Your task to perform on an android device: open app "Truecaller" Image 0: 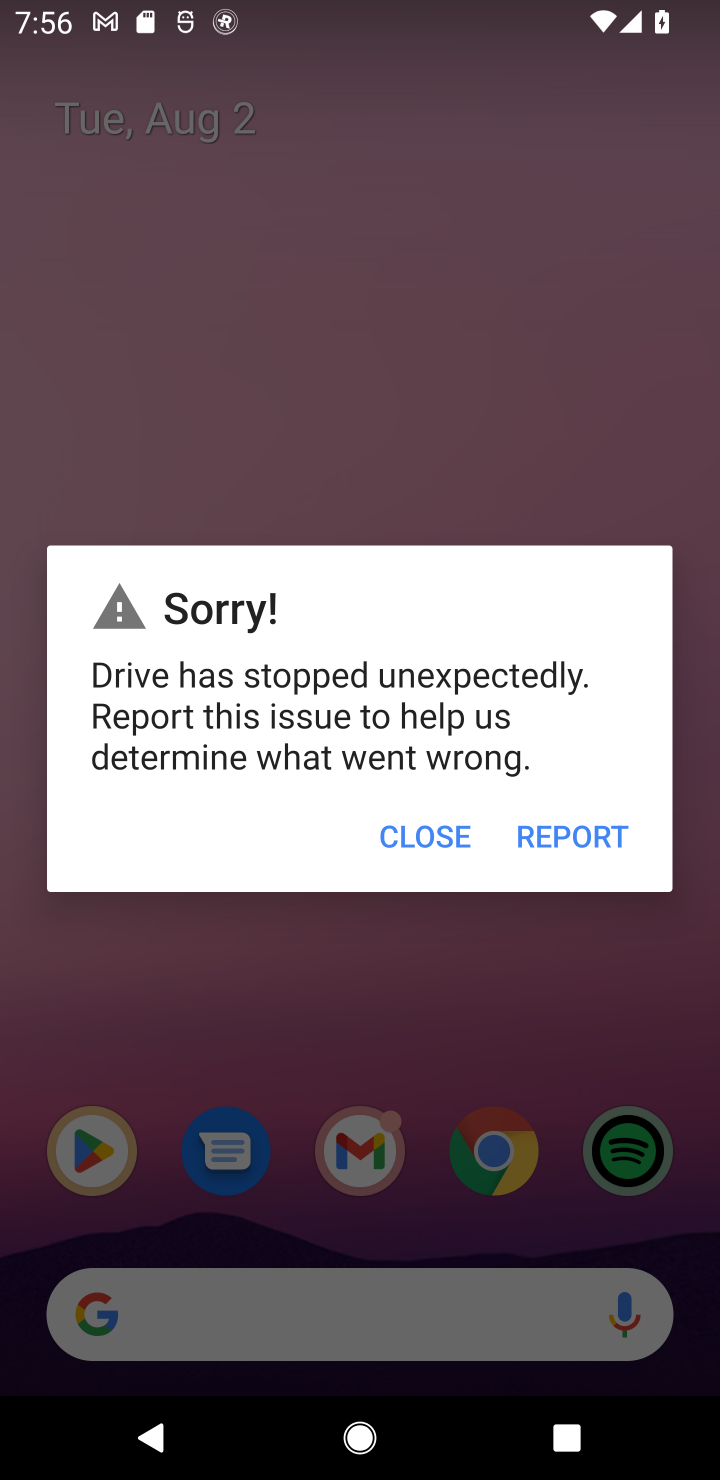
Step 0: press back button
Your task to perform on an android device: open app "Truecaller" Image 1: 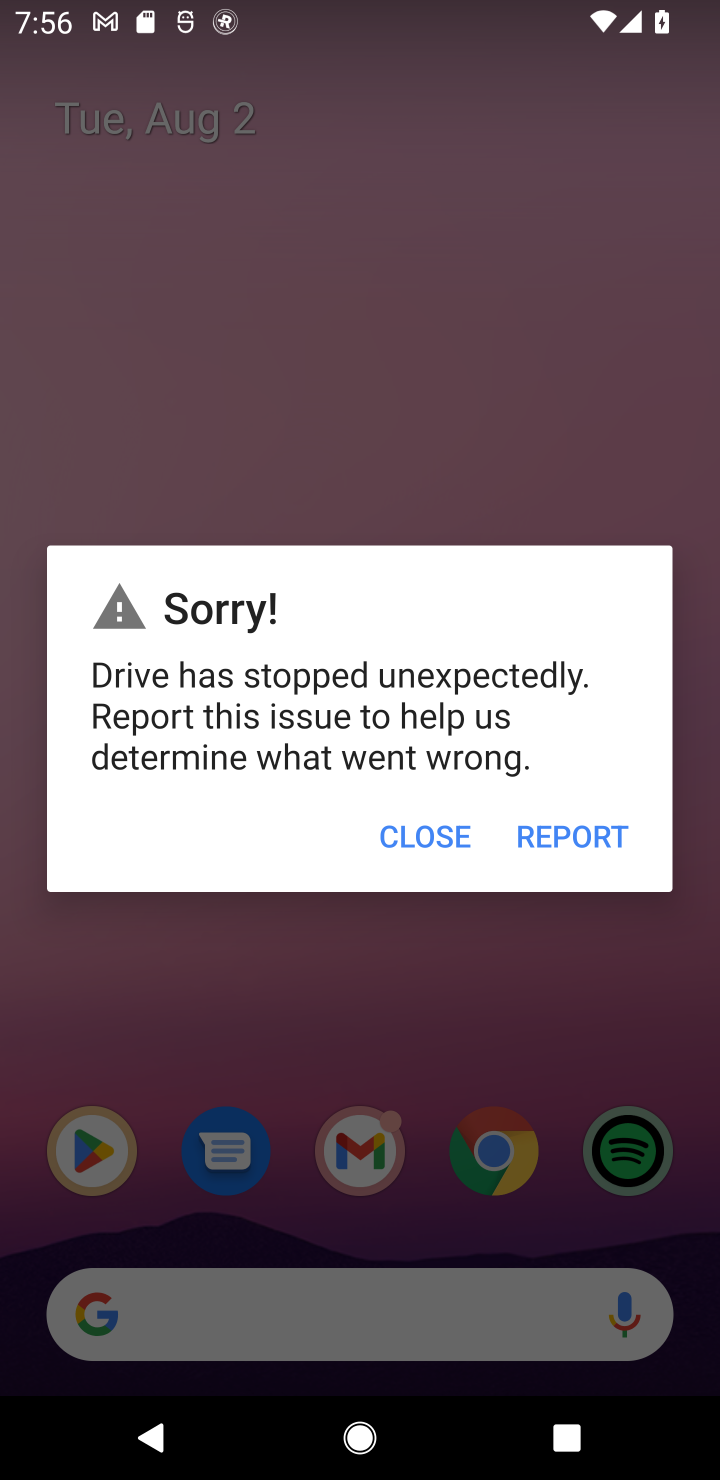
Step 1: press back button
Your task to perform on an android device: open app "Truecaller" Image 2: 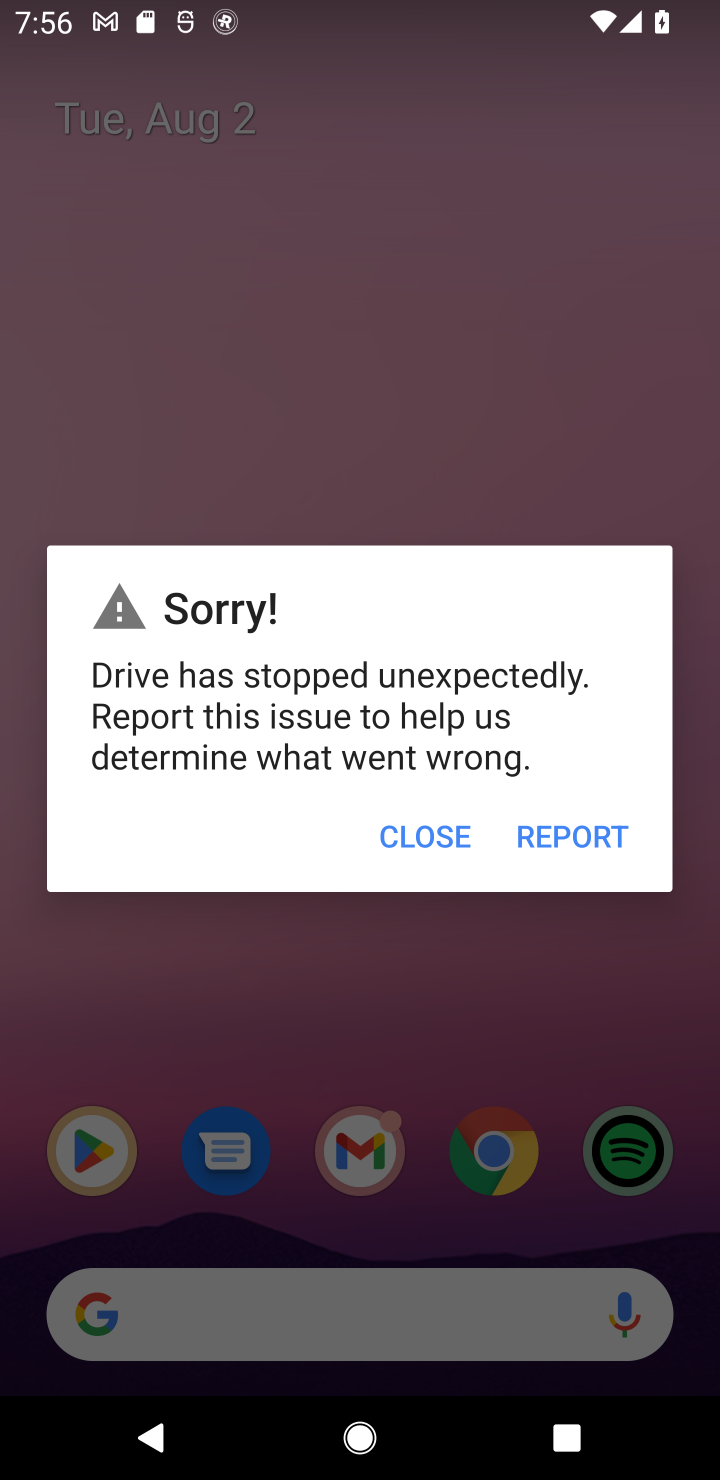
Step 2: click (417, 814)
Your task to perform on an android device: open app "Truecaller" Image 3: 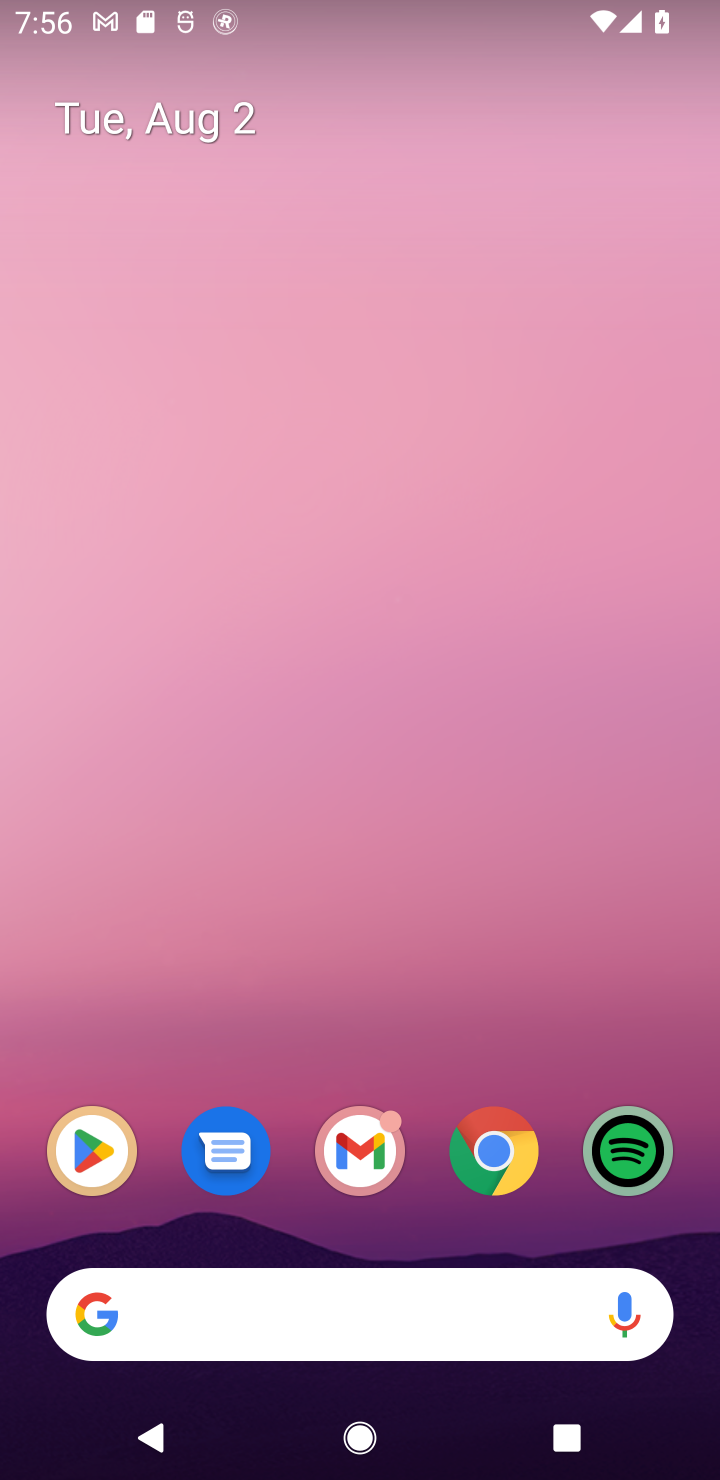
Step 3: click (67, 1169)
Your task to perform on an android device: open app "Truecaller" Image 4: 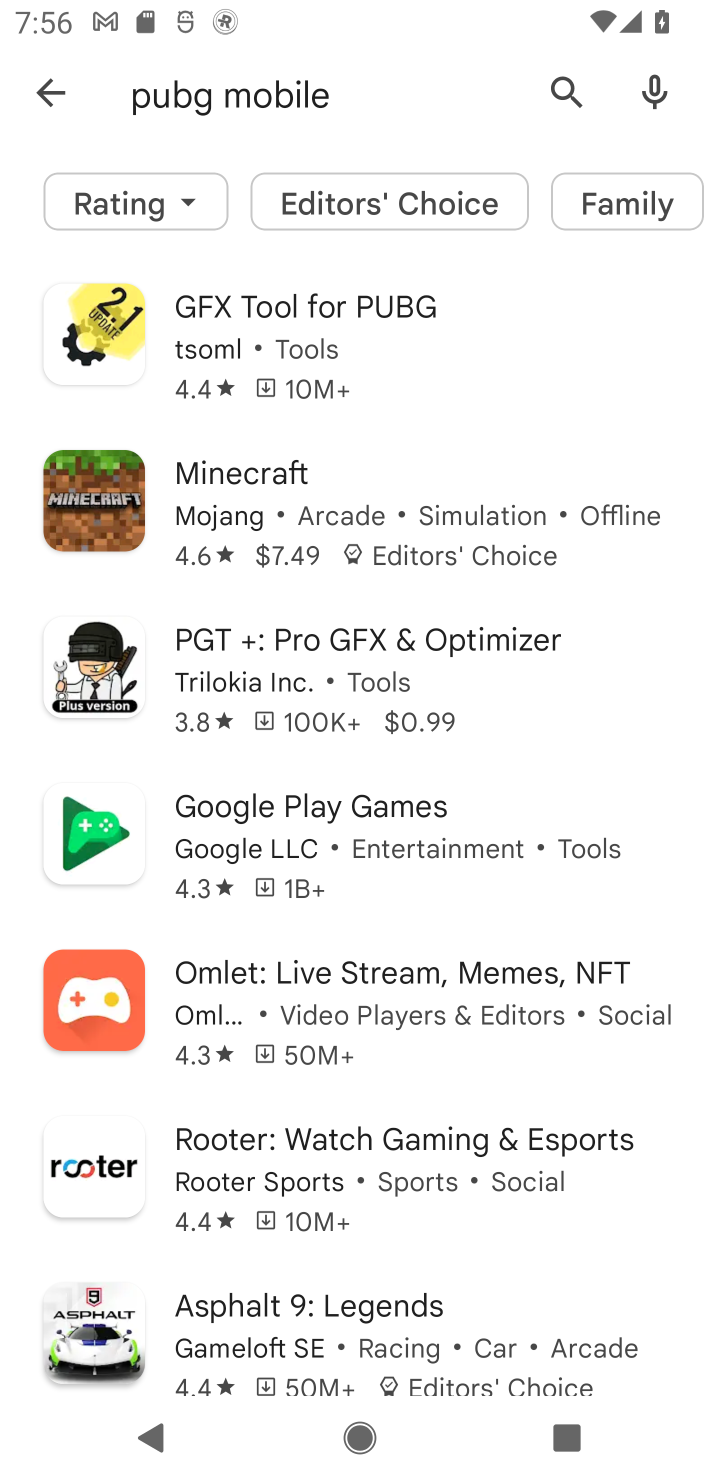
Step 4: click (555, 103)
Your task to perform on an android device: open app "Truecaller" Image 5: 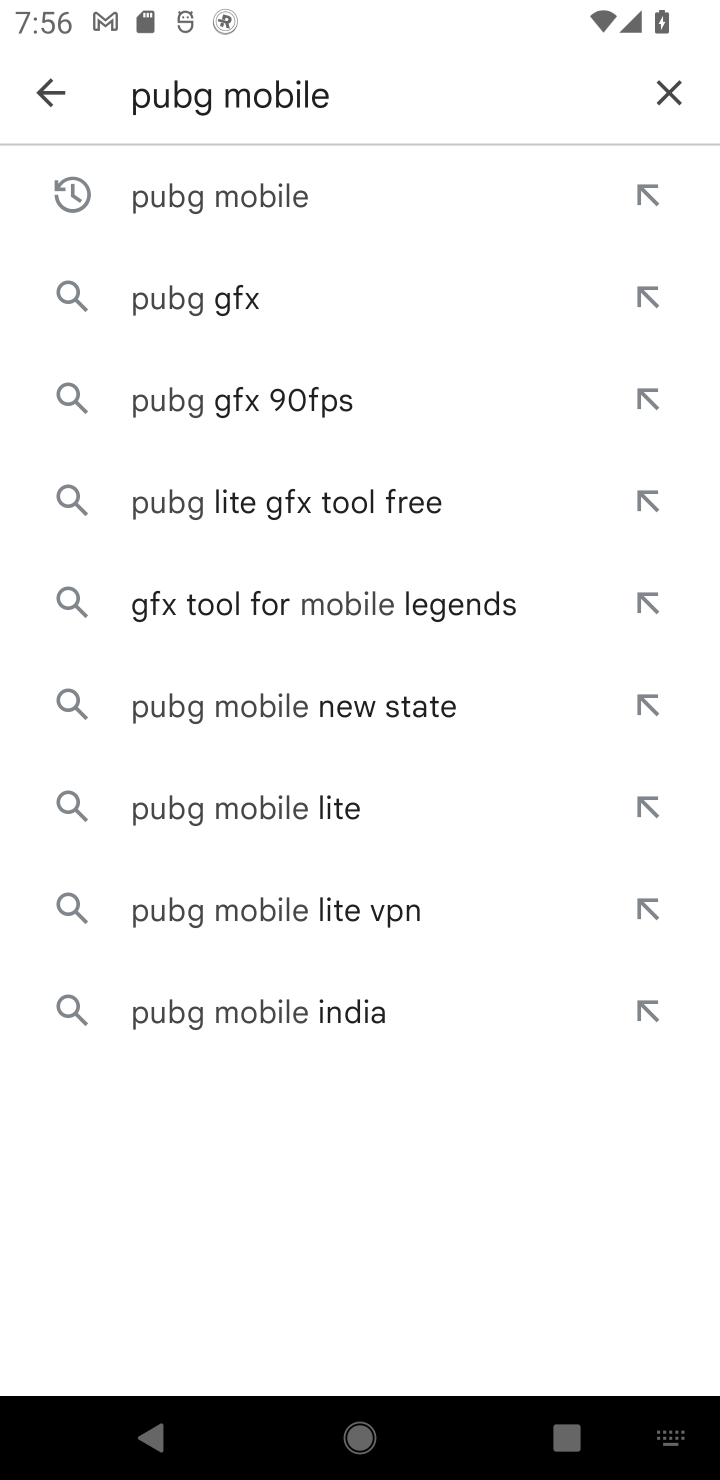
Step 5: click (664, 78)
Your task to perform on an android device: open app "Truecaller" Image 6: 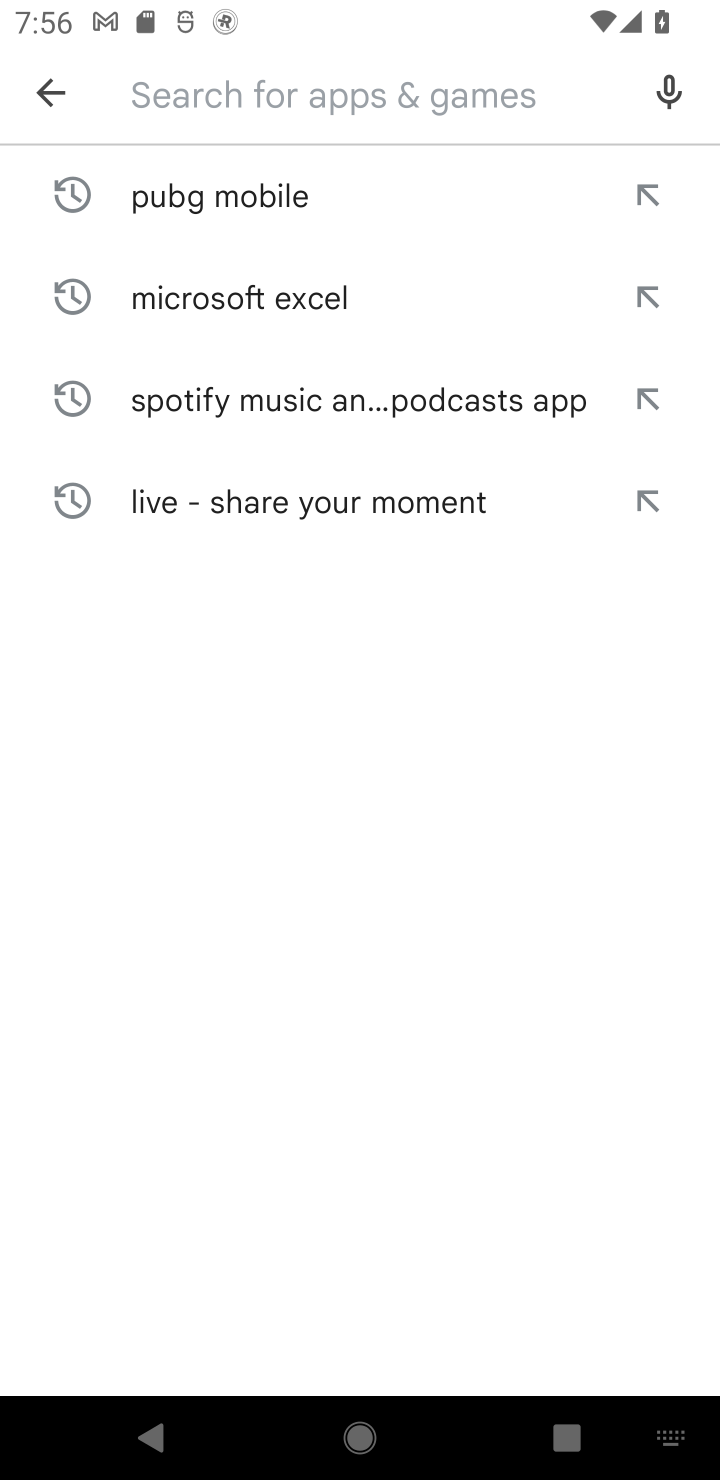
Step 6: type "Truecaller"
Your task to perform on an android device: open app "Truecaller" Image 7: 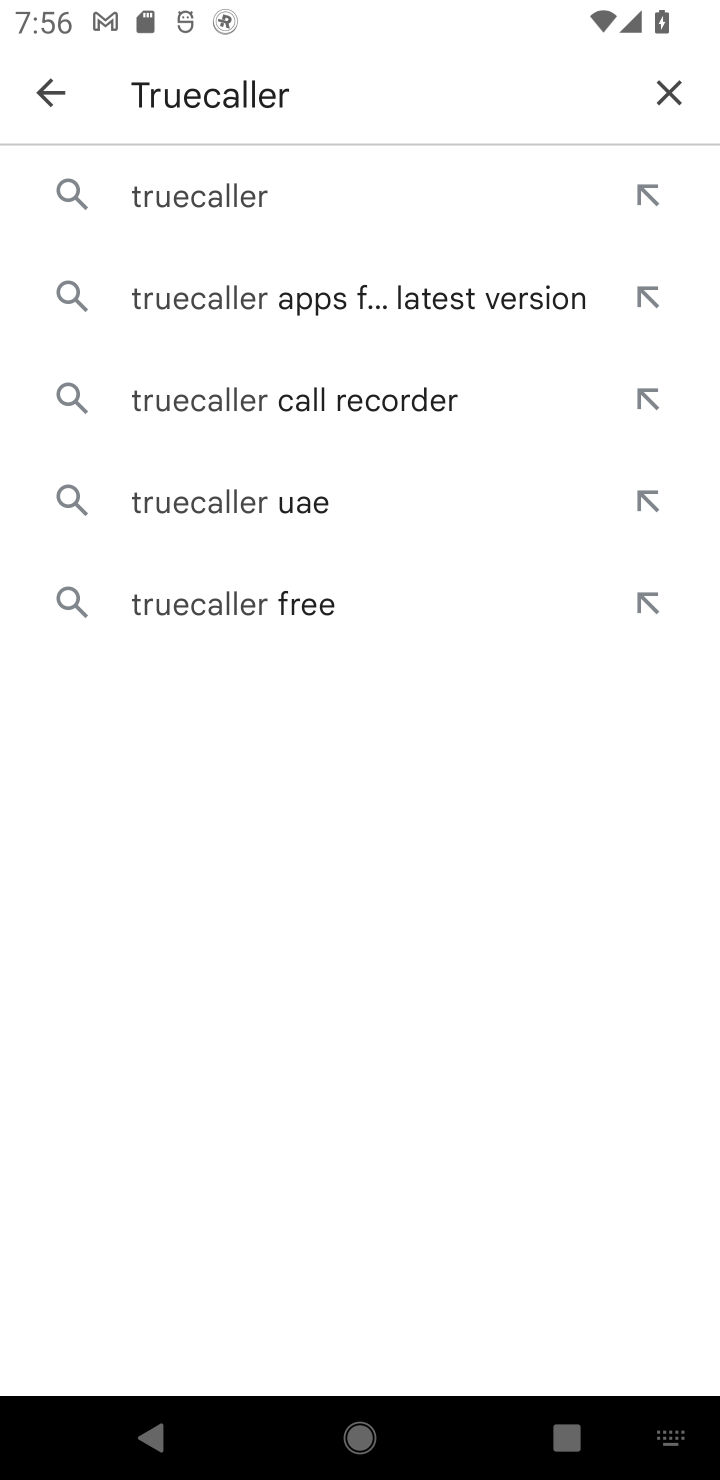
Step 7: click (224, 183)
Your task to perform on an android device: open app "Truecaller" Image 8: 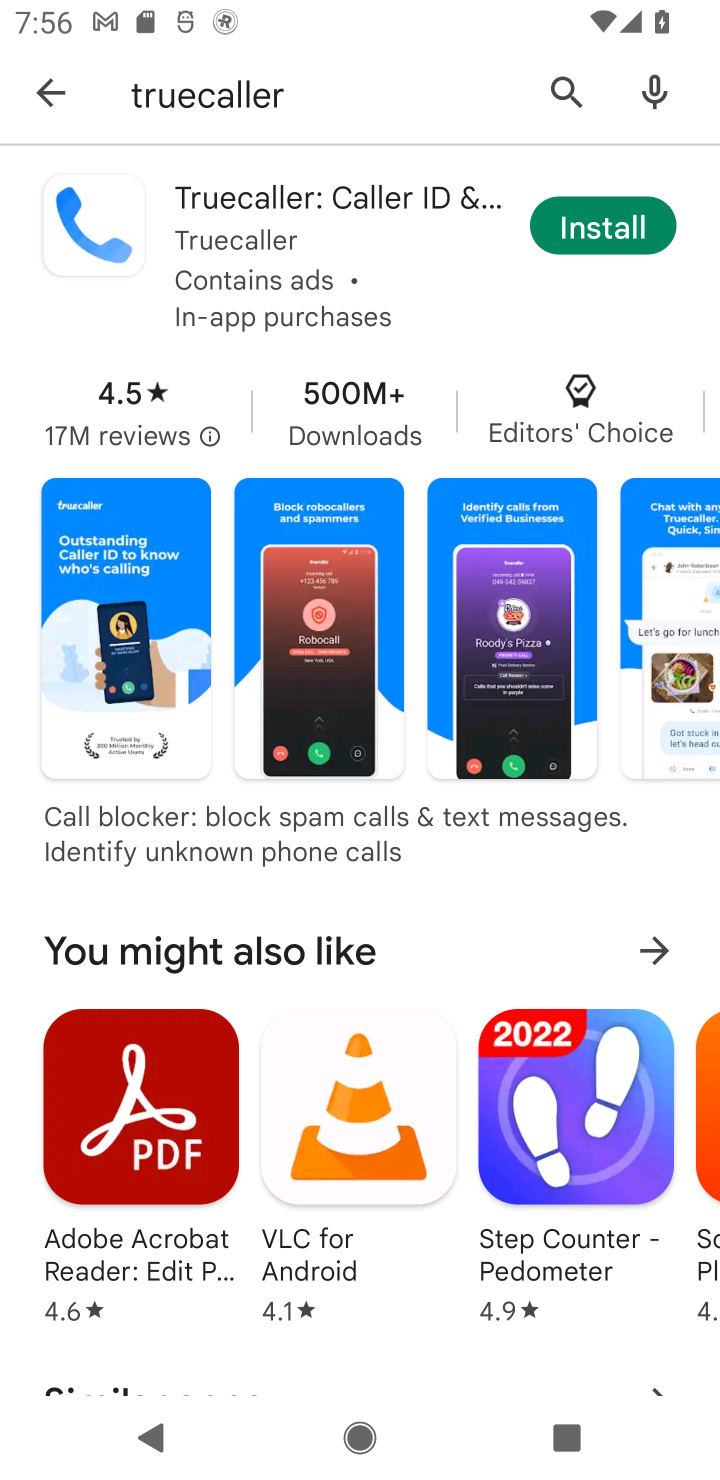
Step 8: task complete